Your task to perform on an android device: read, delete, or share a saved page in the chrome app Image 0: 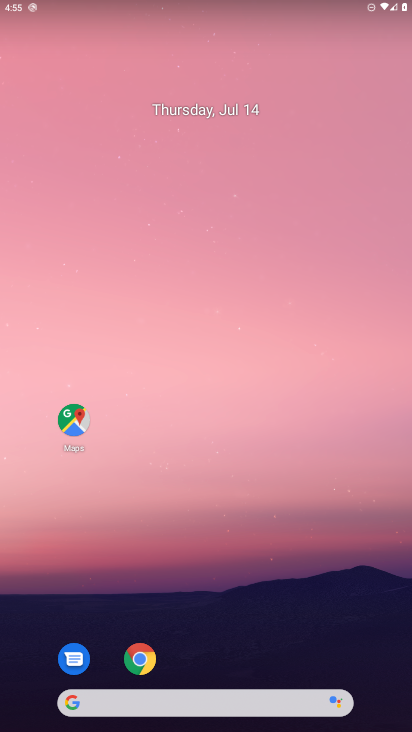
Step 0: press home button
Your task to perform on an android device: read, delete, or share a saved page in the chrome app Image 1: 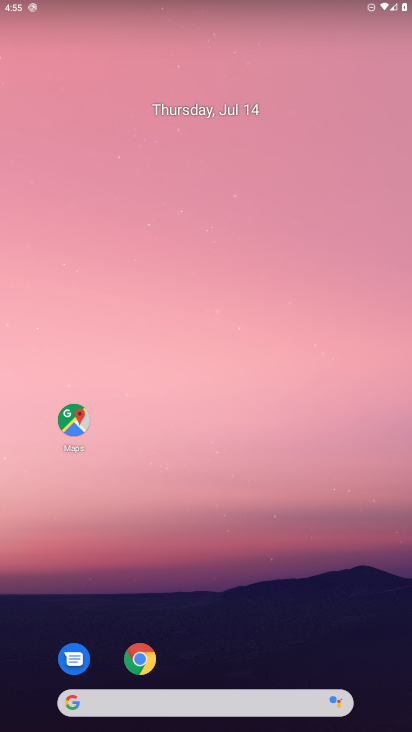
Step 1: click (142, 657)
Your task to perform on an android device: read, delete, or share a saved page in the chrome app Image 2: 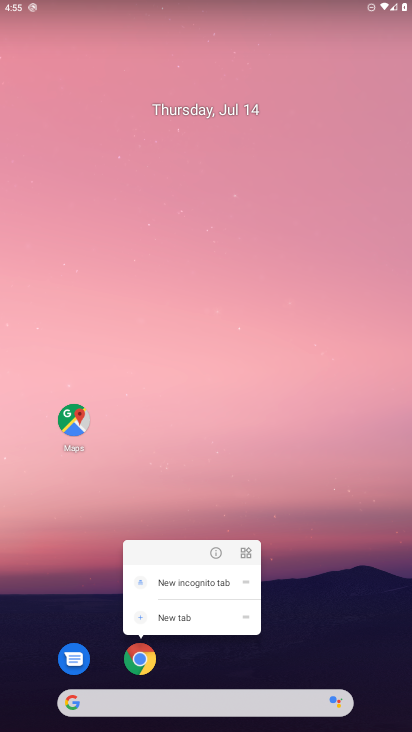
Step 2: click (140, 654)
Your task to perform on an android device: read, delete, or share a saved page in the chrome app Image 3: 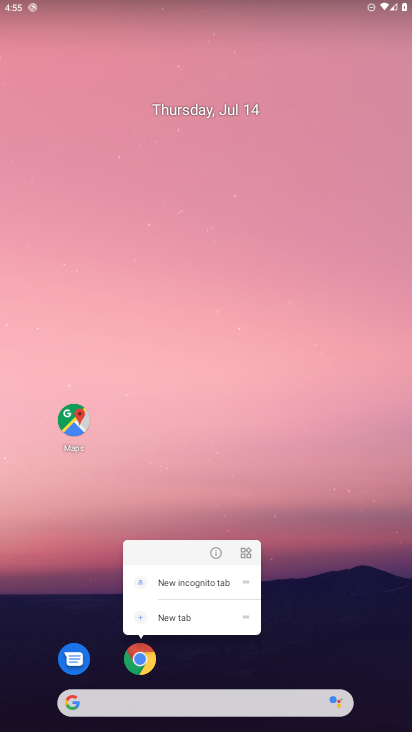
Step 3: click (137, 655)
Your task to perform on an android device: read, delete, or share a saved page in the chrome app Image 4: 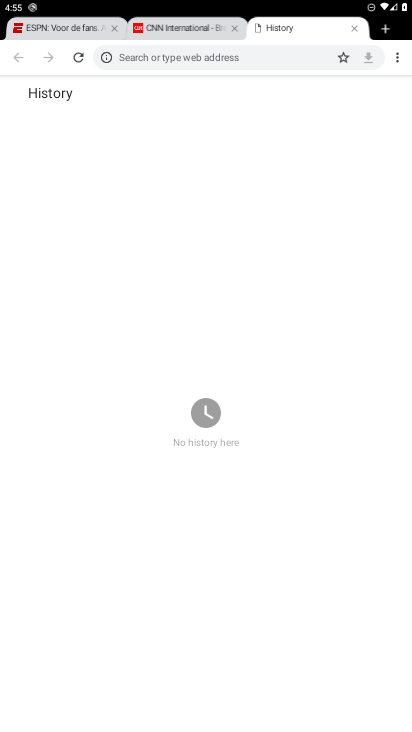
Step 4: click (400, 54)
Your task to perform on an android device: read, delete, or share a saved page in the chrome app Image 5: 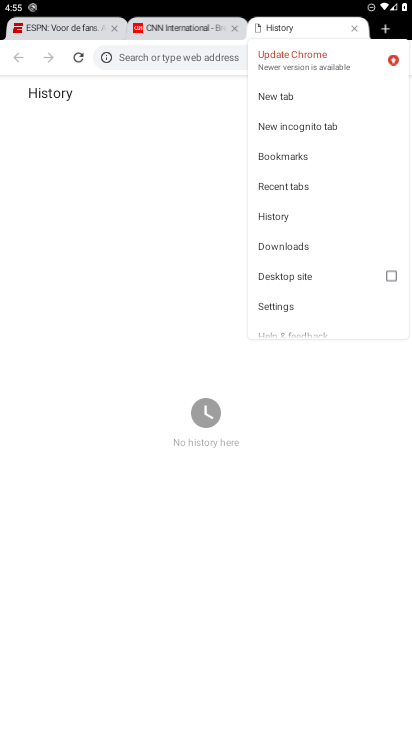
Step 5: click (320, 241)
Your task to perform on an android device: read, delete, or share a saved page in the chrome app Image 6: 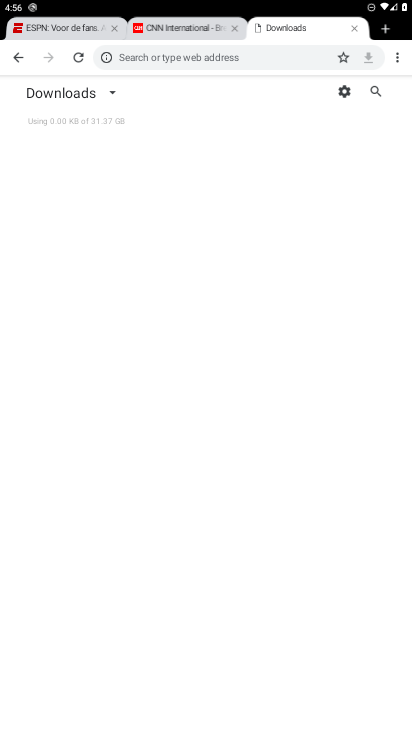
Step 6: task complete